Your task to perform on an android device: Open Wikipedia Image 0: 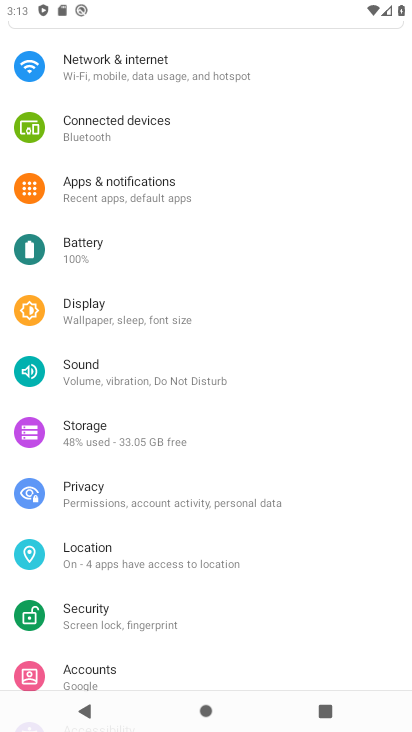
Step 0: press home button
Your task to perform on an android device: Open Wikipedia Image 1: 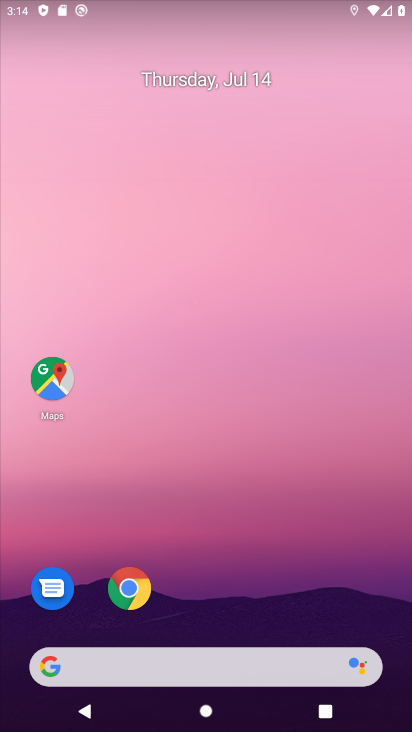
Step 1: click (127, 596)
Your task to perform on an android device: Open Wikipedia Image 2: 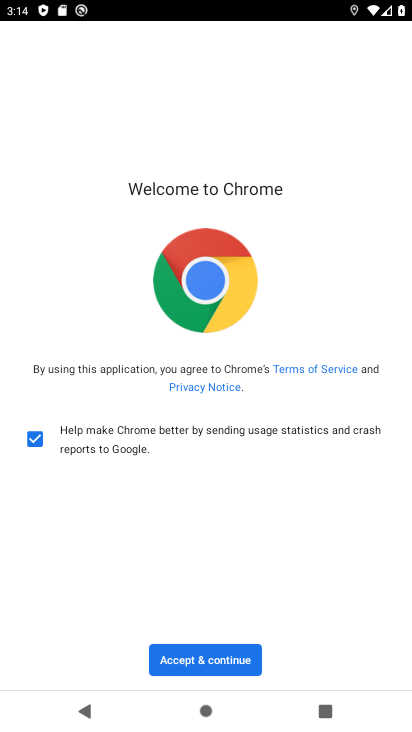
Step 2: click (192, 656)
Your task to perform on an android device: Open Wikipedia Image 3: 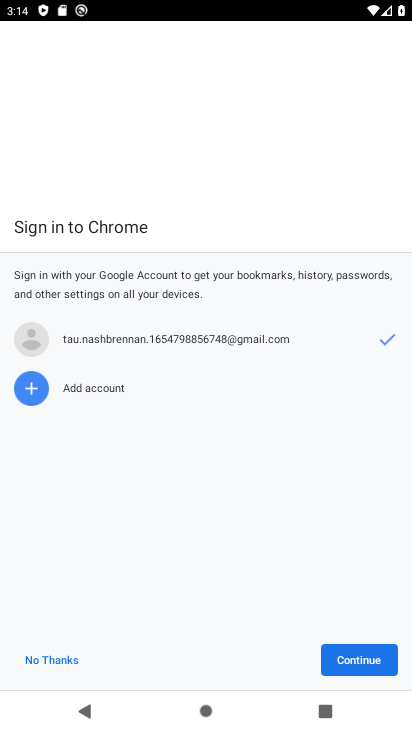
Step 3: click (348, 660)
Your task to perform on an android device: Open Wikipedia Image 4: 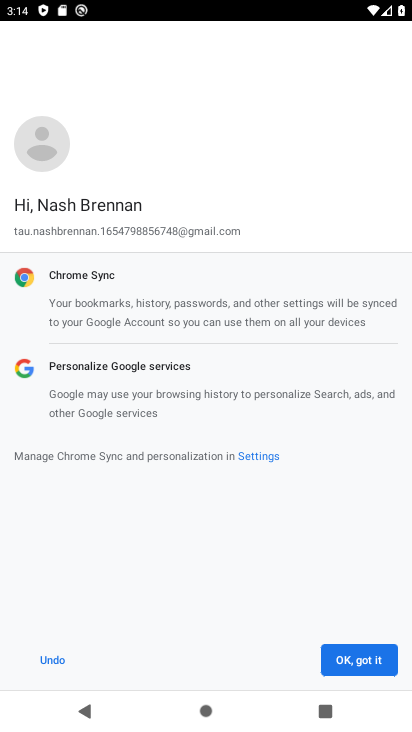
Step 4: click (348, 660)
Your task to perform on an android device: Open Wikipedia Image 5: 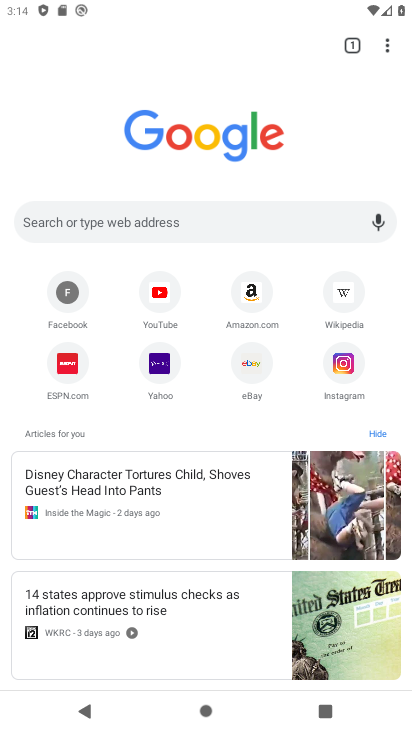
Step 5: click (343, 296)
Your task to perform on an android device: Open Wikipedia Image 6: 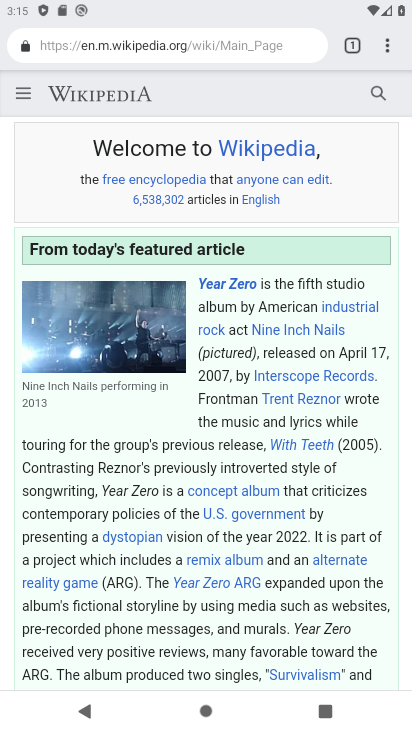
Step 6: task complete